Your task to perform on an android device: change text size in settings app Image 0: 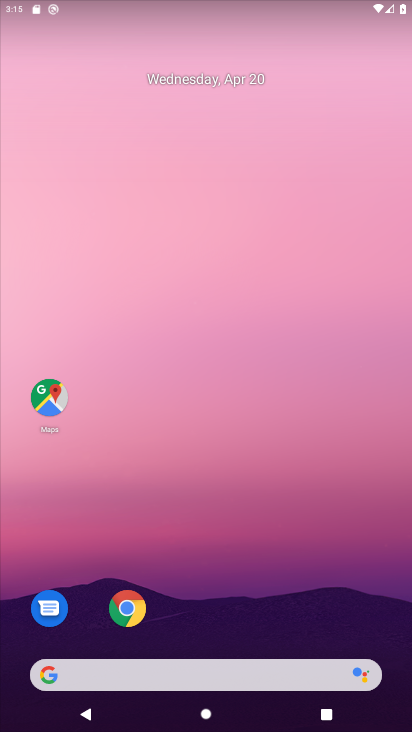
Step 0: drag from (194, 632) to (301, 240)
Your task to perform on an android device: change text size in settings app Image 1: 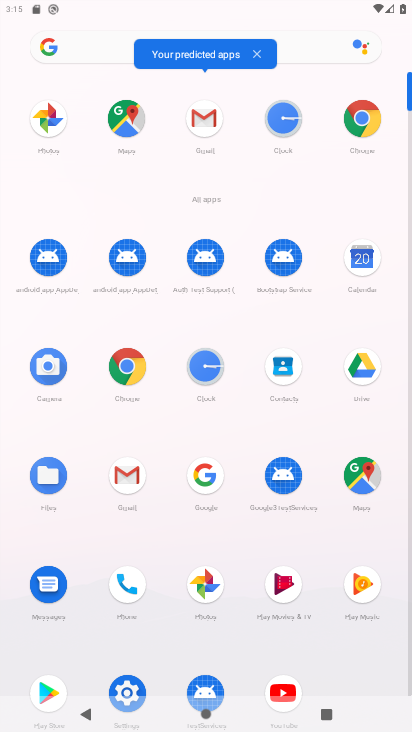
Step 1: click (118, 690)
Your task to perform on an android device: change text size in settings app Image 2: 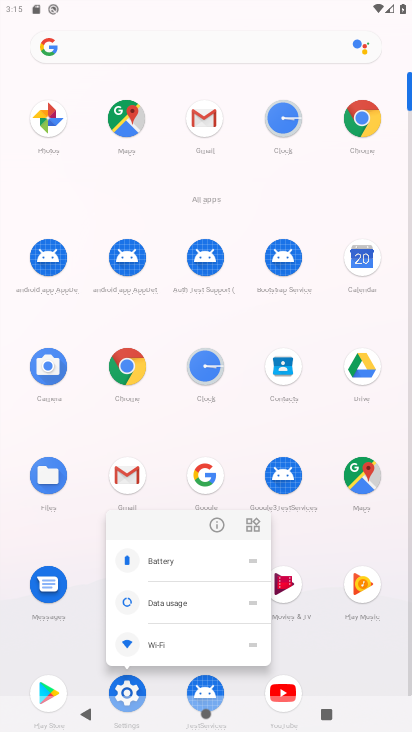
Step 2: click (118, 690)
Your task to perform on an android device: change text size in settings app Image 3: 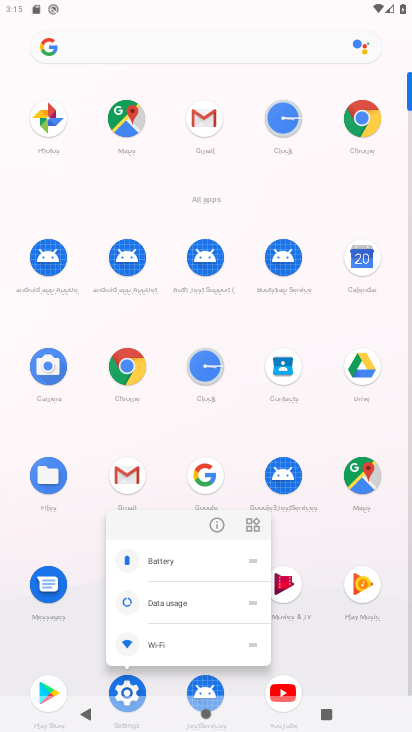
Step 3: click (126, 696)
Your task to perform on an android device: change text size in settings app Image 4: 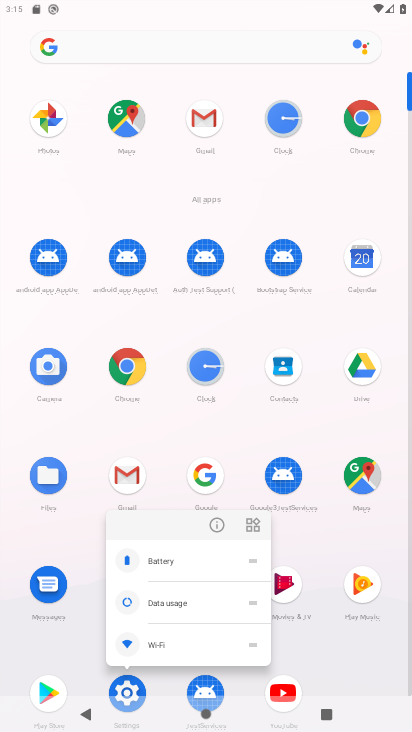
Step 4: click (127, 688)
Your task to perform on an android device: change text size in settings app Image 5: 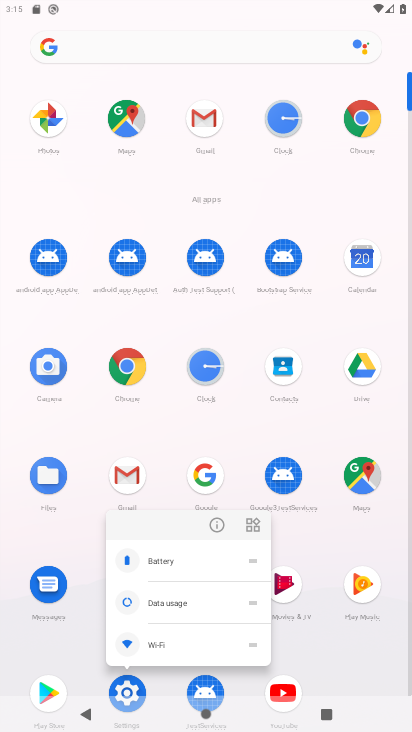
Step 5: click (130, 686)
Your task to perform on an android device: change text size in settings app Image 6: 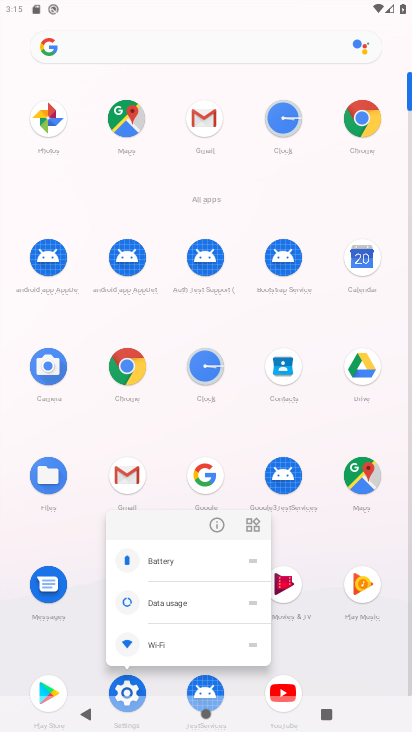
Step 6: click (120, 701)
Your task to perform on an android device: change text size in settings app Image 7: 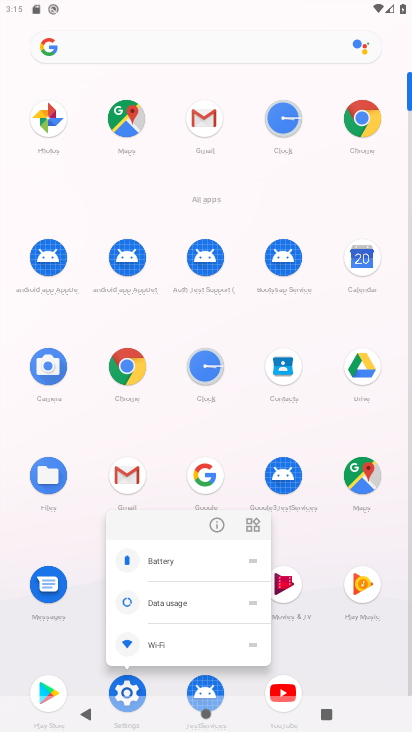
Step 7: click (126, 697)
Your task to perform on an android device: change text size in settings app Image 8: 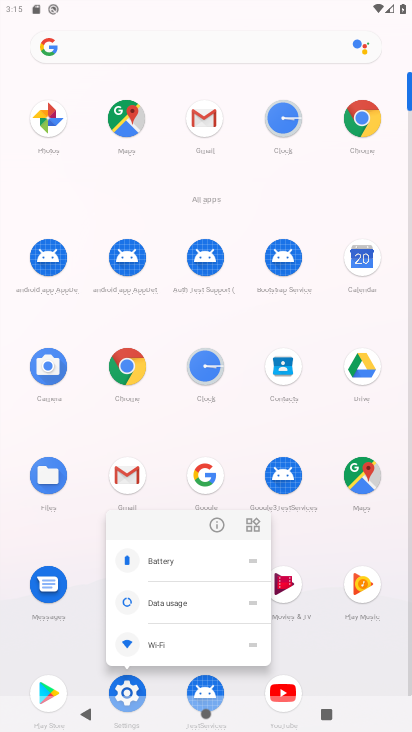
Step 8: click (129, 696)
Your task to perform on an android device: change text size in settings app Image 9: 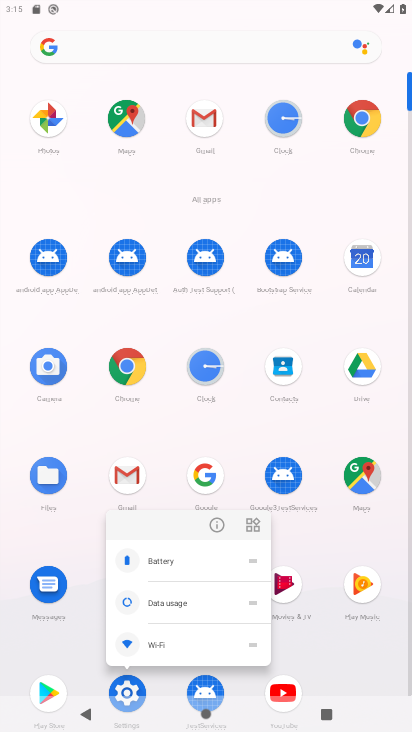
Step 9: click (130, 692)
Your task to perform on an android device: change text size in settings app Image 10: 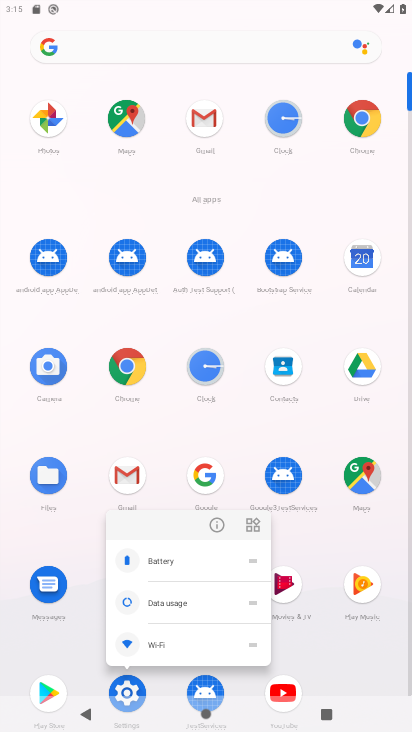
Step 10: click (128, 692)
Your task to perform on an android device: change text size in settings app Image 11: 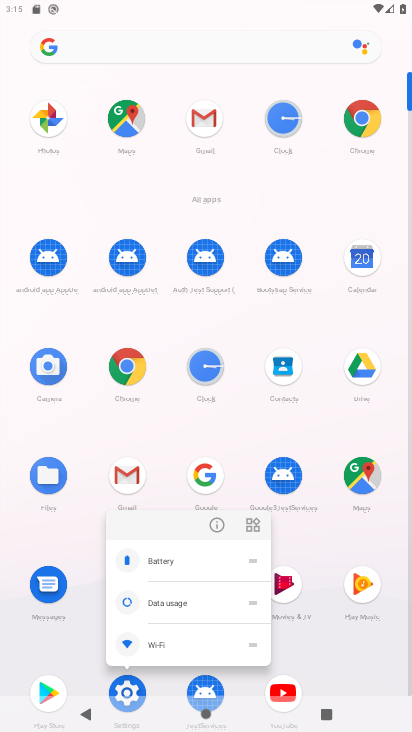
Step 11: click (127, 693)
Your task to perform on an android device: change text size in settings app Image 12: 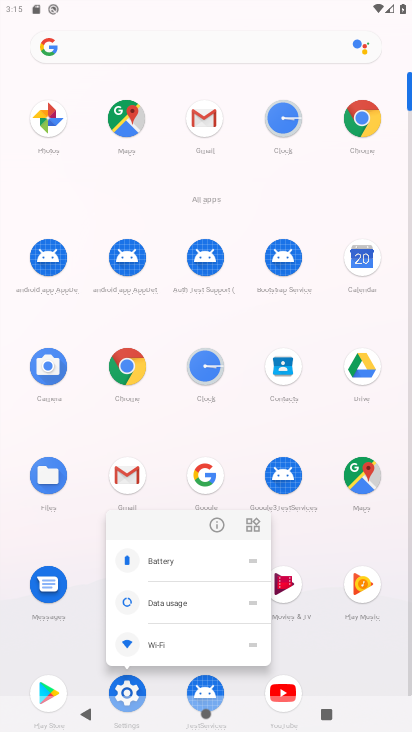
Step 12: click (125, 690)
Your task to perform on an android device: change text size in settings app Image 13: 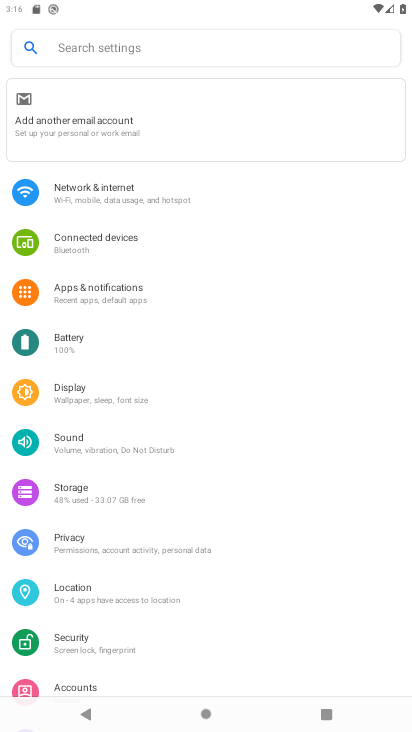
Step 13: drag from (164, 600) to (246, 504)
Your task to perform on an android device: change text size in settings app Image 14: 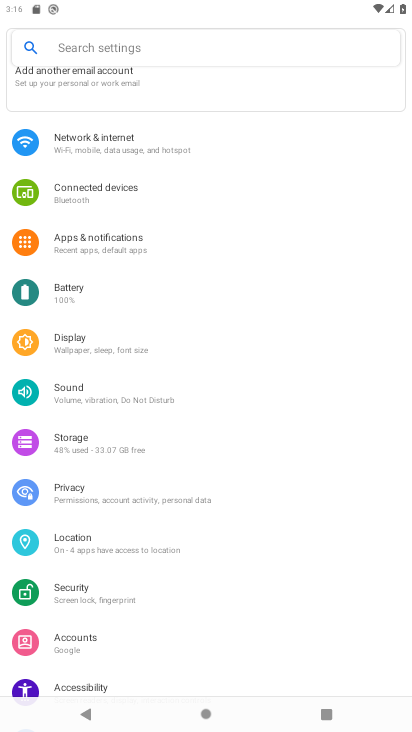
Step 14: click (116, 347)
Your task to perform on an android device: change text size in settings app Image 15: 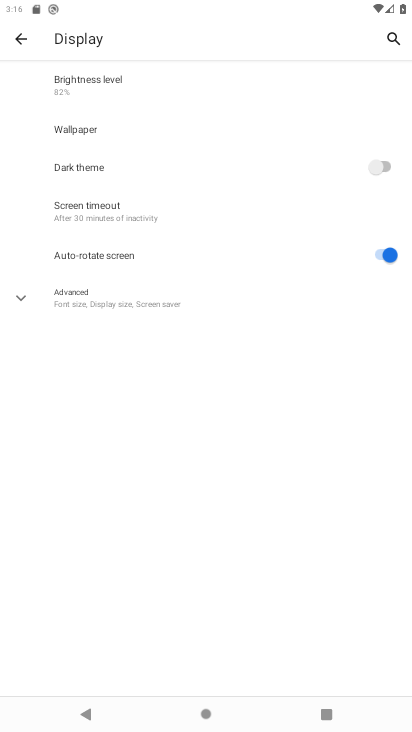
Step 15: click (167, 311)
Your task to perform on an android device: change text size in settings app Image 16: 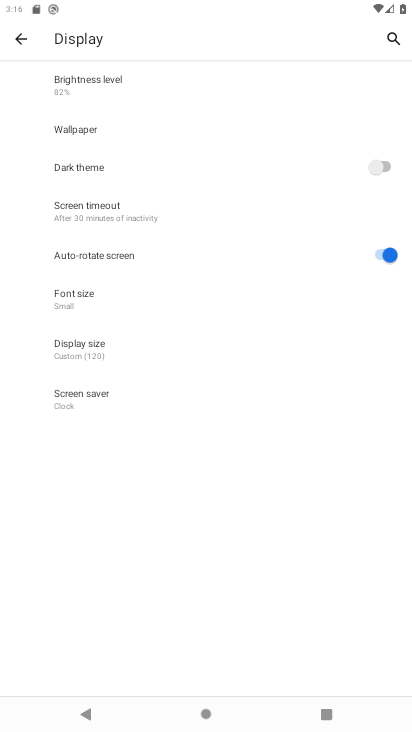
Step 16: click (120, 307)
Your task to perform on an android device: change text size in settings app Image 17: 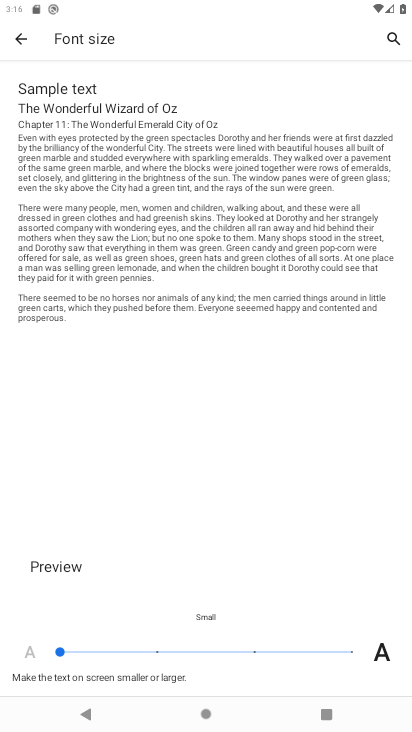
Step 17: click (160, 647)
Your task to perform on an android device: change text size in settings app Image 18: 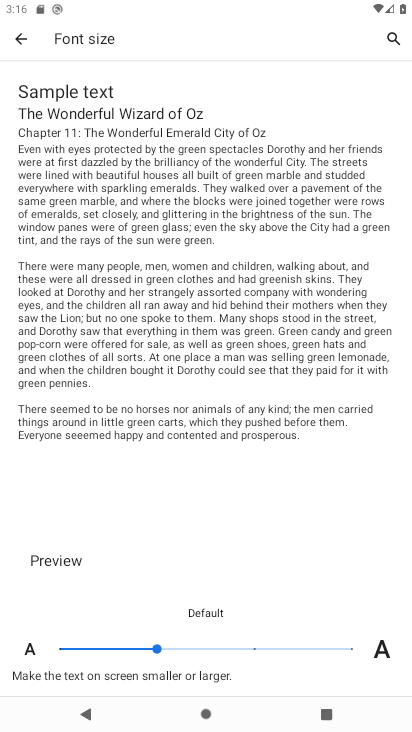
Step 18: task complete